Your task to perform on an android device: turn on notifications settings in the gmail app Image 0: 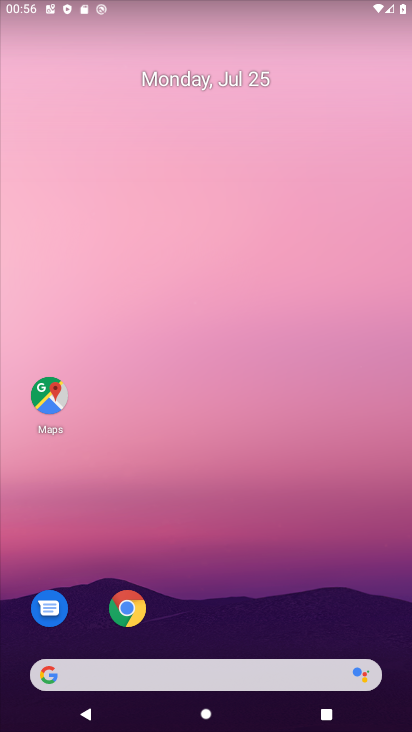
Step 0: drag from (210, 647) to (224, 1)
Your task to perform on an android device: turn on notifications settings in the gmail app Image 1: 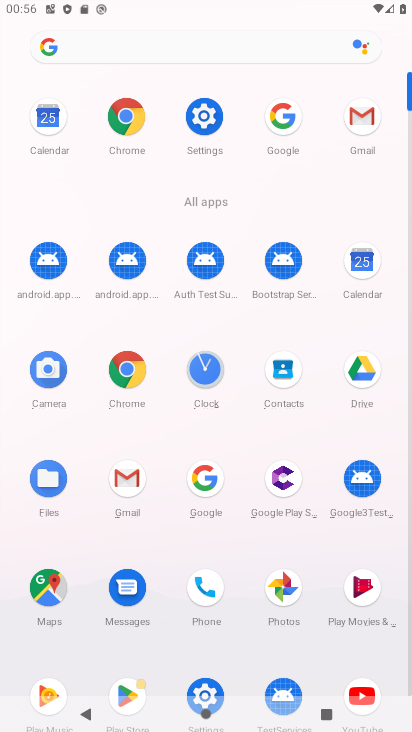
Step 1: click (107, 491)
Your task to perform on an android device: turn on notifications settings in the gmail app Image 2: 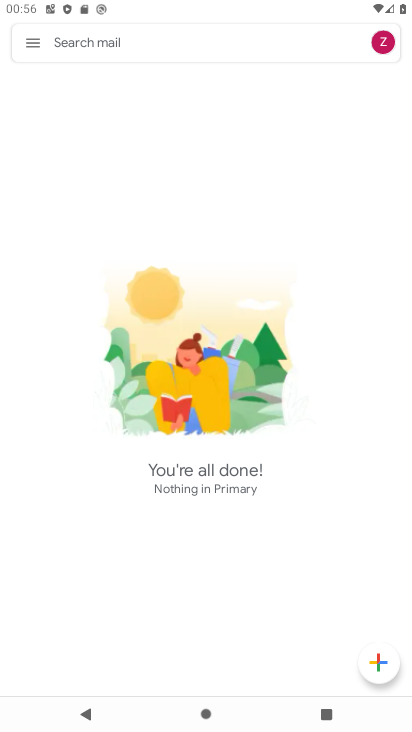
Step 2: click (26, 38)
Your task to perform on an android device: turn on notifications settings in the gmail app Image 3: 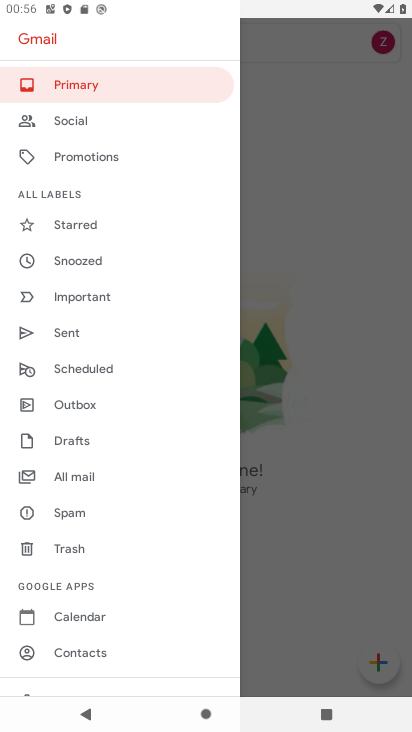
Step 3: drag from (203, 655) to (110, 91)
Your task to perform on an android device: turn on notifications settings in the gmail app Image 4: 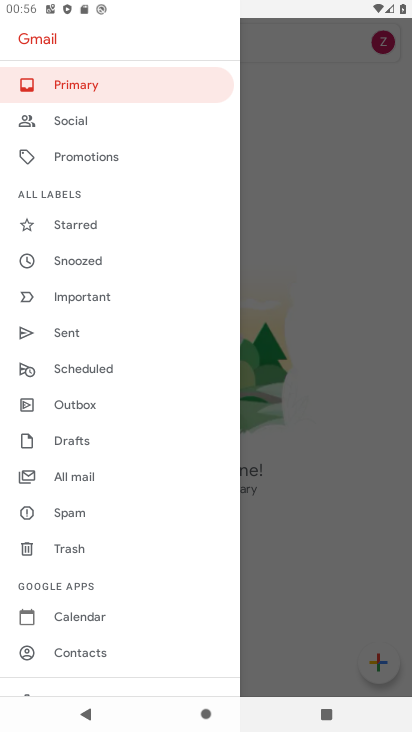
Step 4: drag from (42, 575) to (37, 24)
Your task to perform on an android device: turn on notifications settings in the gmail app Image 5: 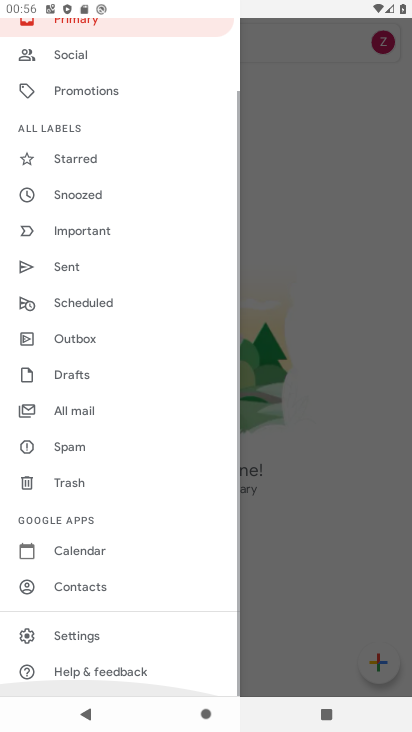
Step 5: click (53, 628)
Your task to perform on an android device: turn on notifications settings in the gmail app Image 6: 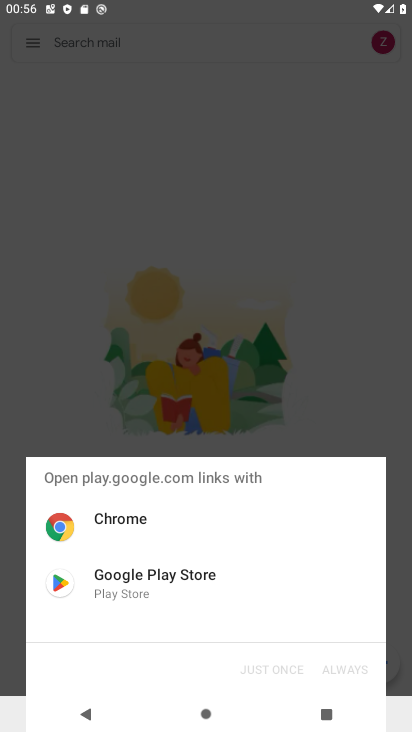
Step 6: click (189, 580)
Your task to perform on an android device: turn on notifications settings in the gmail app Image 7: 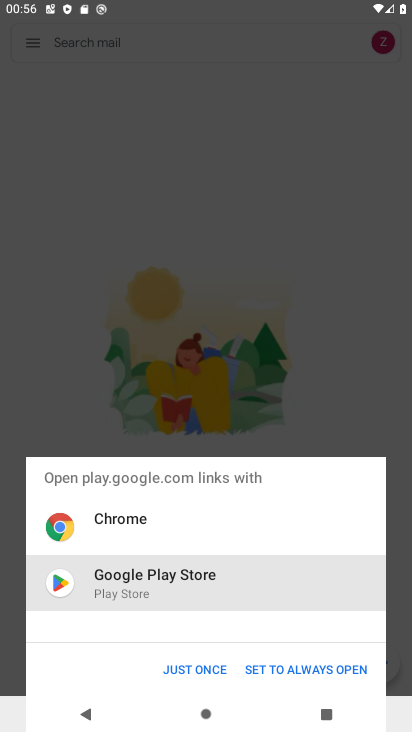
Step 7: click (210, 665)
Your task to perform on an android device: turn on notifications settings in the gmail app Image 8: 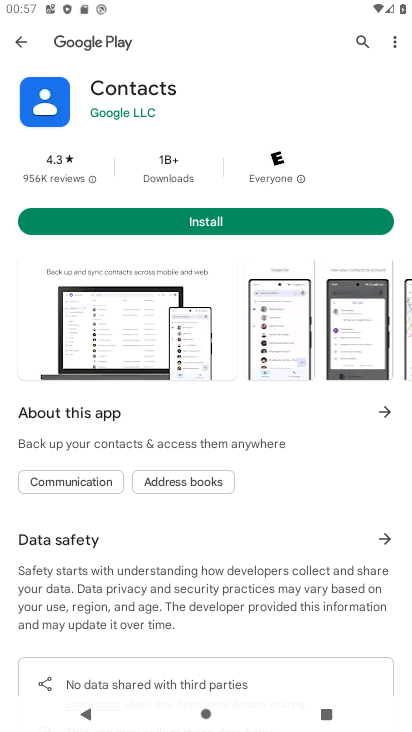
Step 8: press back button
Your task to perform on an android device: turn on notifications settings in the gmail app Image 9: 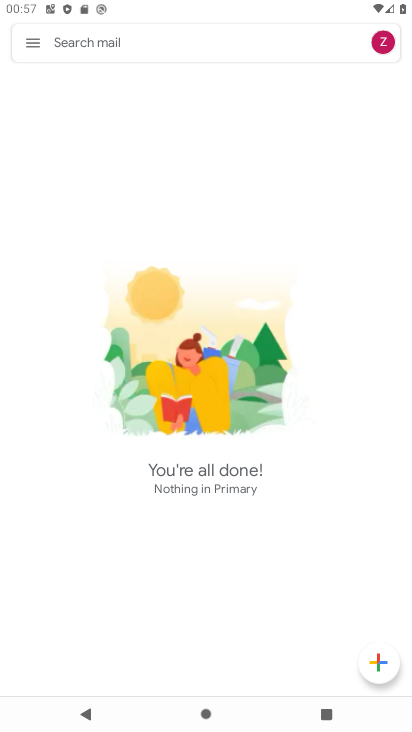
Step 9: press back button
Your task to perform on an android device: turn on notifications settings in the gmail app Image 10: 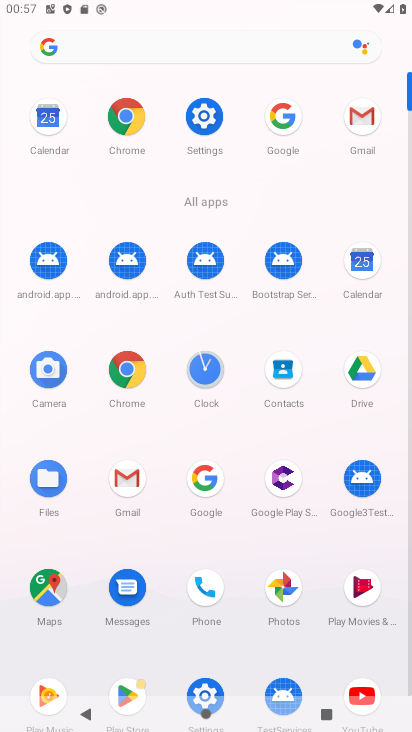
Step 10: click (127, 464)
Your task to perform on an android device: turn on notifications settings in the gmail app Image 11: 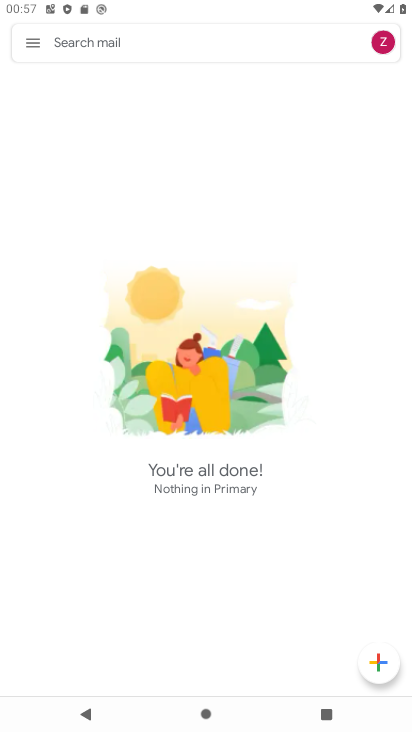
Step 11: press home button
Your task to perform on an android device: turn on notifications settings in the gmail app Image 12: 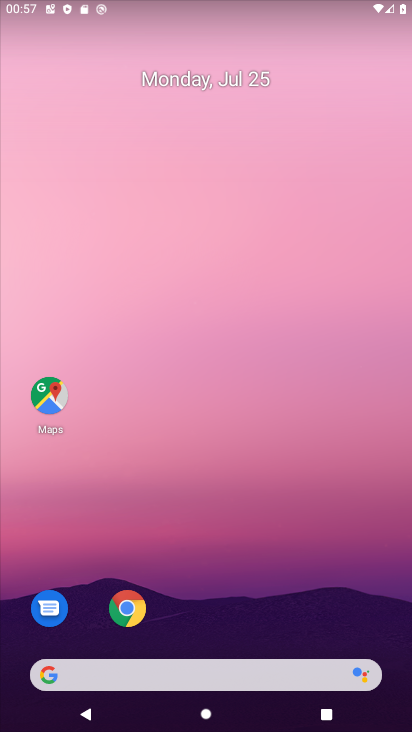
Step 12: drag from (246, 645) to (216, 0)
Your task to perform on an android device: turn on notifications settings in the gmail app Image 13: 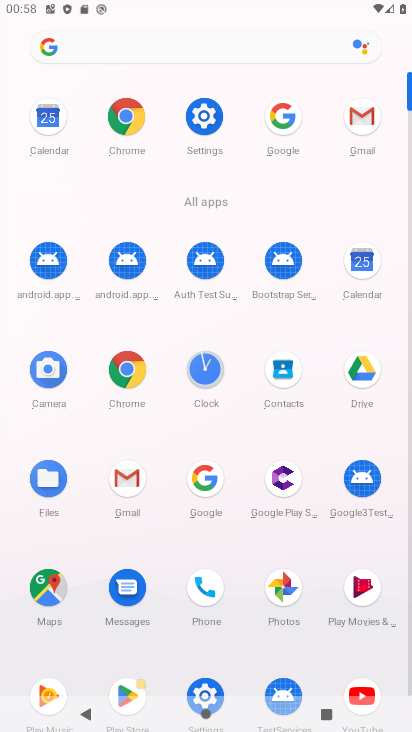
Step 13: click (131, 475)
Your task to perform on an android device: turn on notifications settings in the gmail app Image 14: 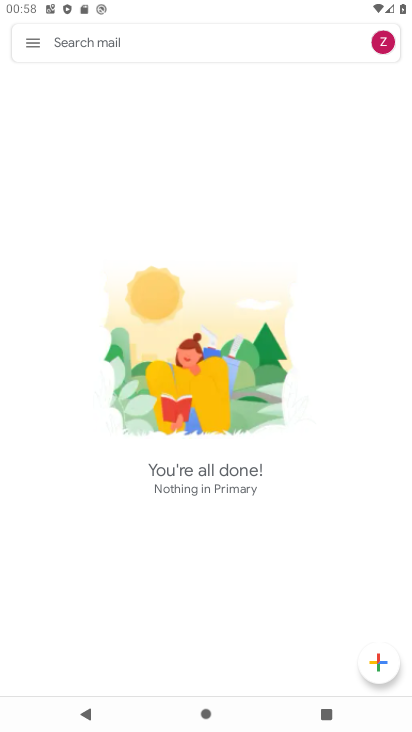
Step 14: click (29, 40)
Your task to perform on an android device: turn on notifications settings in the gmail app Image 15: 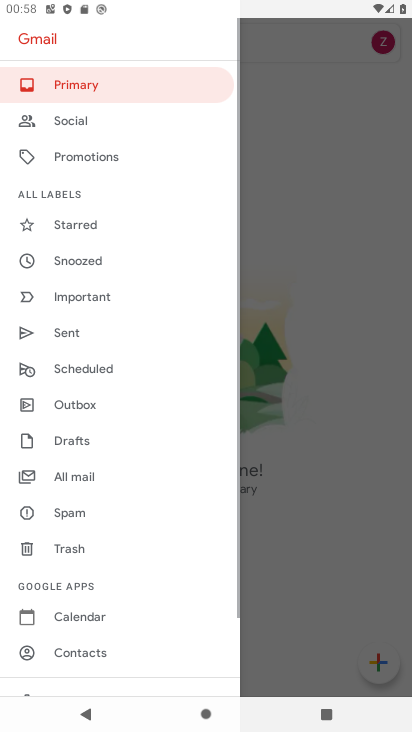
Step 15: drag from (103, 629) to (102, 171)
Your task to perform on an android device: turn on notifications settings in the gmail app Image 16: 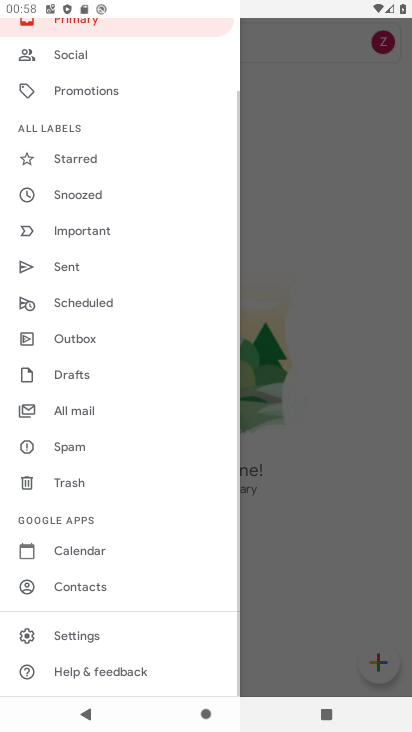
Step 16: click (58, 643)
Your task to perform on an android device: turn on notifications settings in the gmail app Image 17: 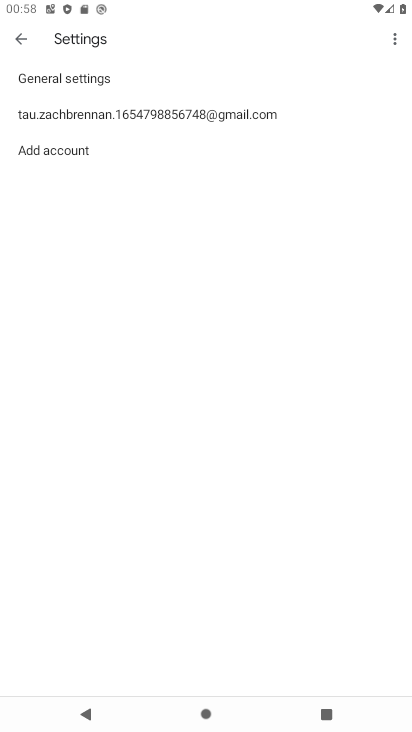
Step 17: click (48, 65)
Your task to perform on an android device: turn on notifications settings in the gmail app Image 18: 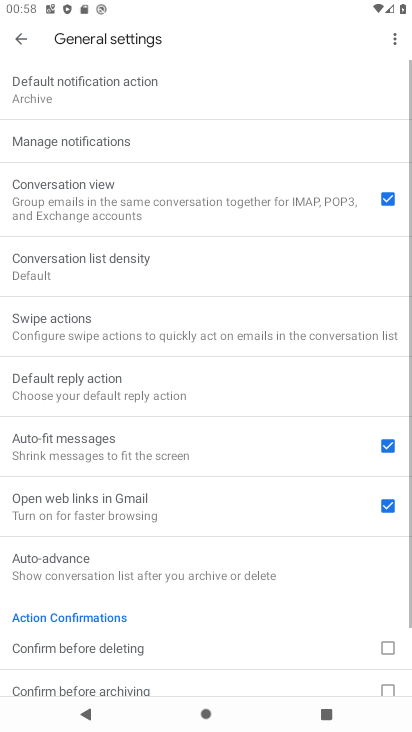
Step 18: click (67, 150)
Your task to perform on an android device: turn on notifications settings in the gmail app Image 19: 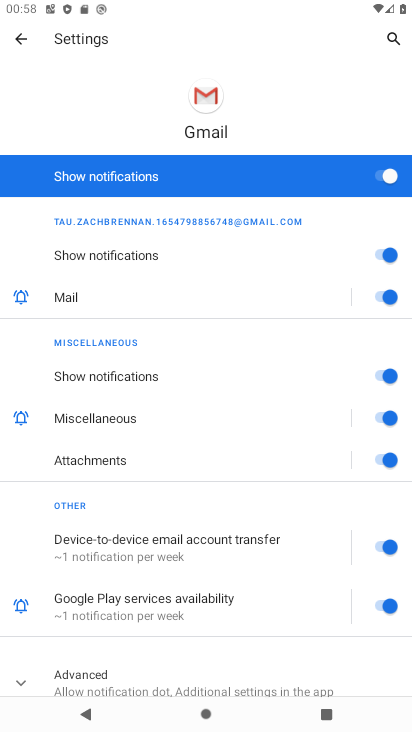
Step 19: task complete